Your task to perform on an android device: Go to Yahoo.com Image 0: 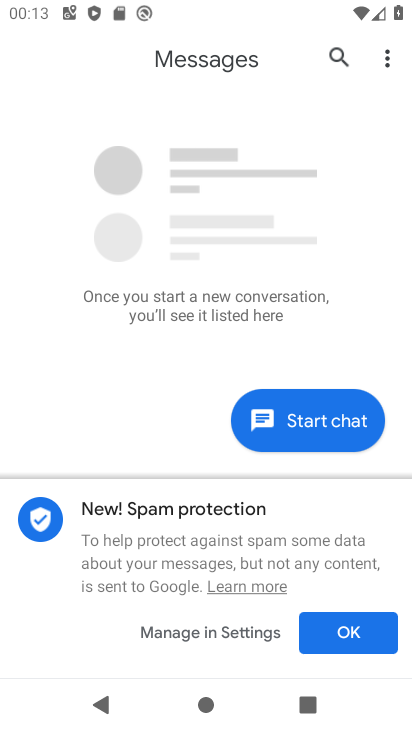
Step 0: press home button
Your task to perform on an android device: Go to Yahoo.com Image 1: 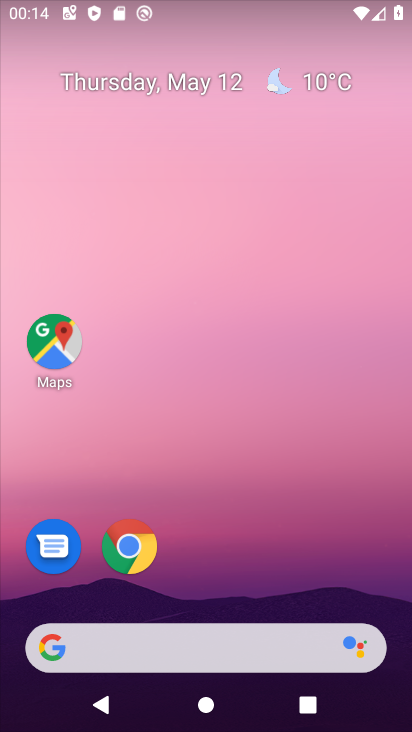
Step 1: click (131, 542)
Your task to perform on an android device: Go to Yahoo.com Image 2: 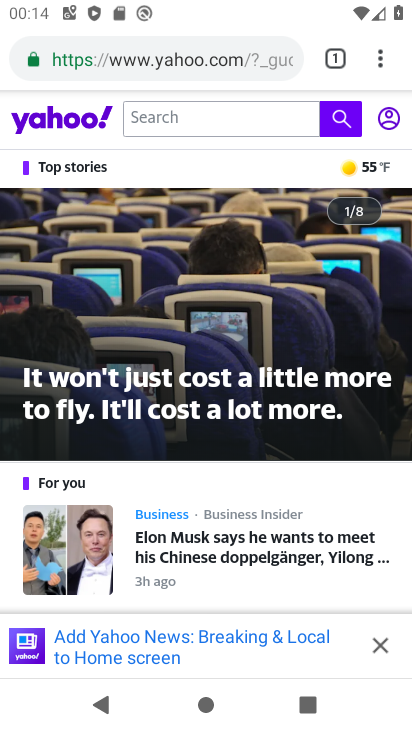
Step 2: click (142, 59)
Your task to perform on an android device: Go to Yahoo.com Image 3: 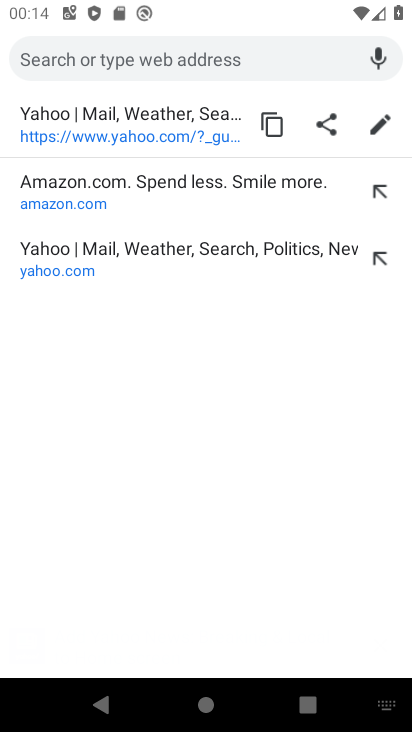
Step 3: type "yahoo.com"
Your task to perform on an android device: Go to Yahoo.com Image 4: 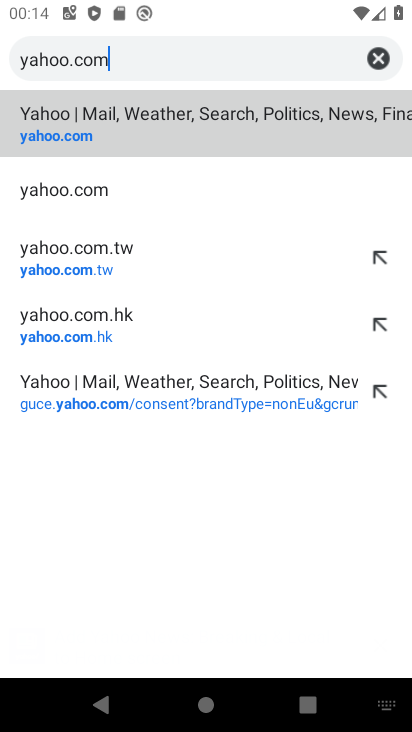
Step 4: click (159, 190)
Your task to perform on an android device: Go to Yahoo.com Image 5: 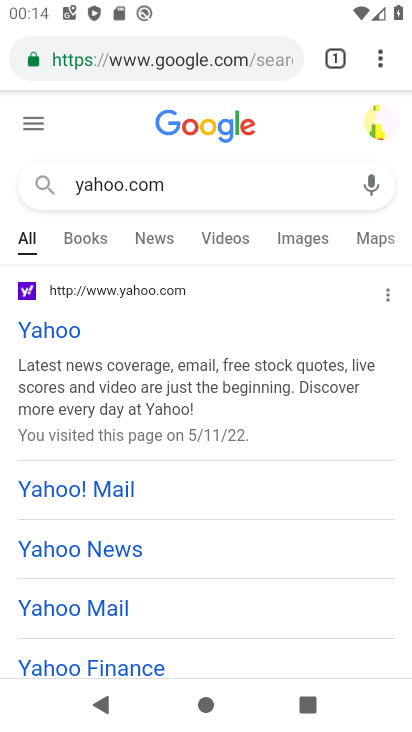
Step 5: task complete